Your task to perform on an android device: What's the weather? Image 0: 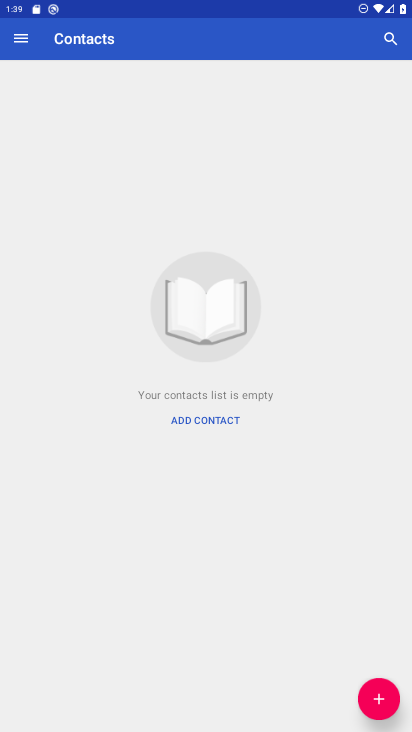
Step 0: press home button
Your task to perform on an android device: What's the weather? Image 1: 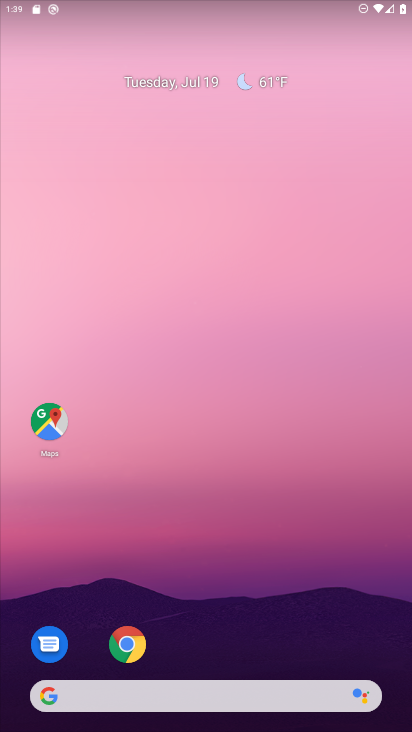
Step 1: drag from (3, 254) to (400, 283)
Your task to perform on an android device: What's the weather? Image 2: 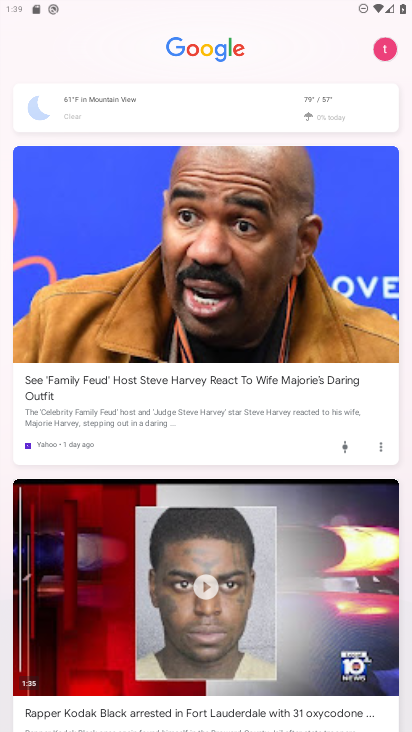
Step 2: click (316, 105)
Your task to perform on an android device: What's the weather? Image 3: 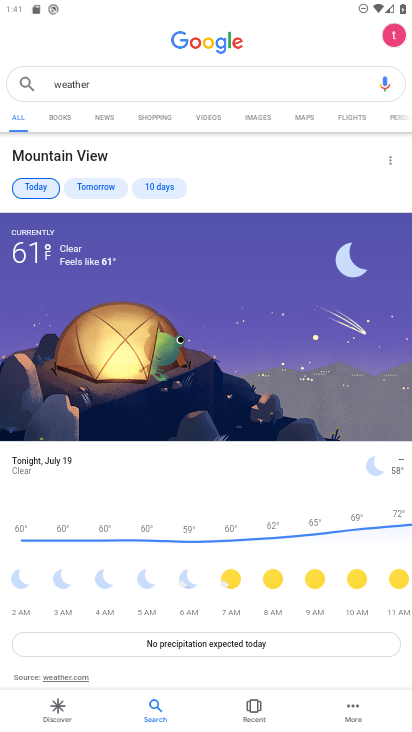
Step 3: task complete